Your task to perform on an android device: change timer sound Image 0: 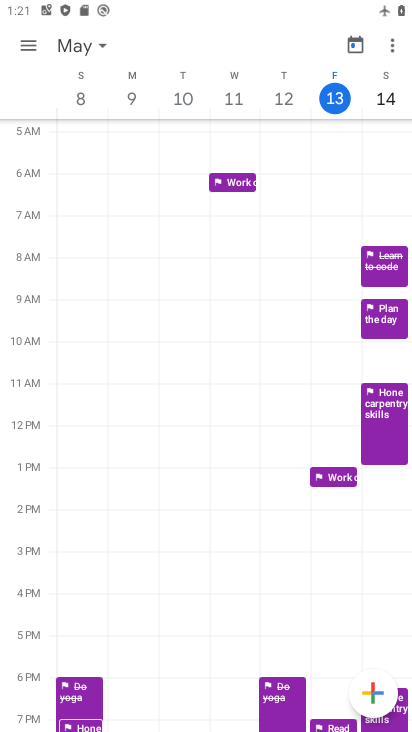
Step 0: press home button
Your task to perform on an android device: change timer sound Image 1: 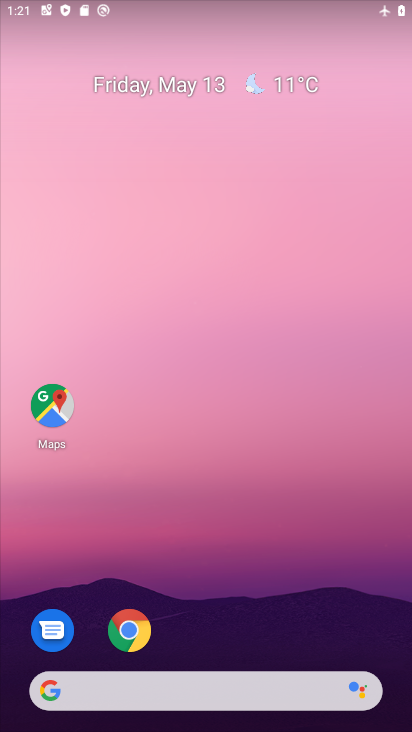
Step 1: drag from (341, 571) to (382, 28)
Your task to perform on an android device: change timer sound Image 2: 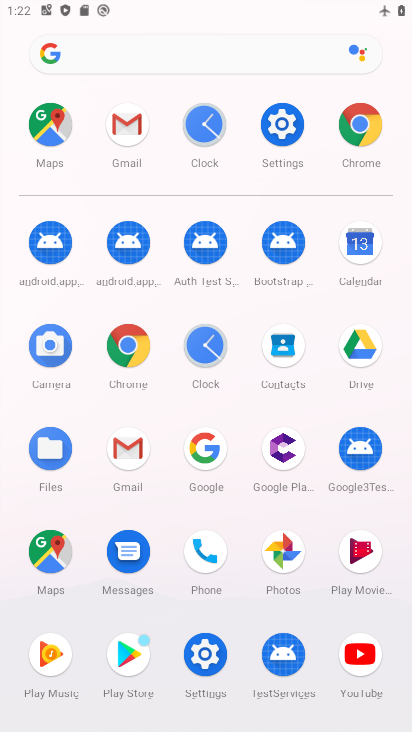
Step 2: click (198, 135)
Your task to perform on an android device: change timer sound Image 3: 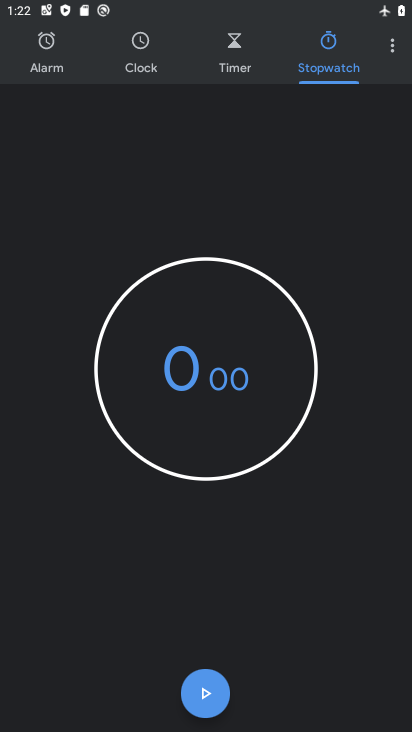
Step 3: click (393, 47)
Your task to perform on an android device: change timer sound Image 4: 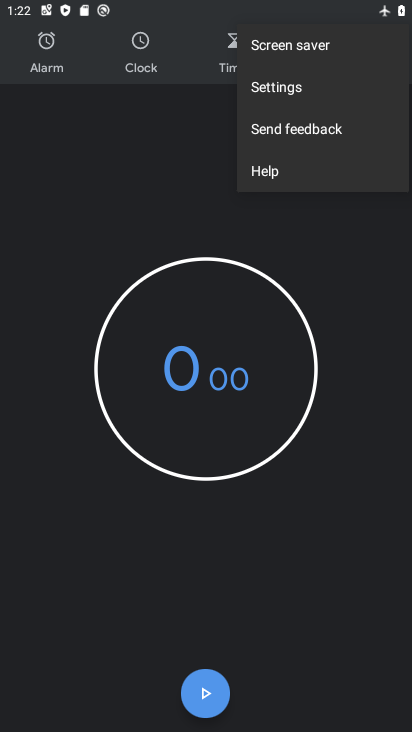
Step 4: click (296, 92)
Your task to perform on an android device: change timer sound Image 5: 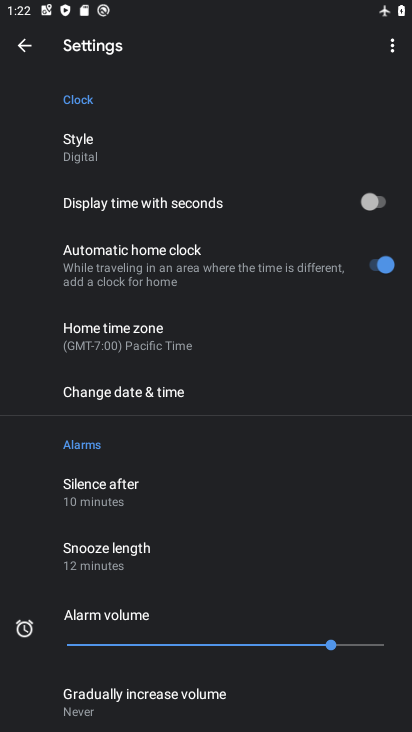
Step 5: drag from (177, 544) to (196, 236)
Your task to perform on an android device: change timer sound Image 6: 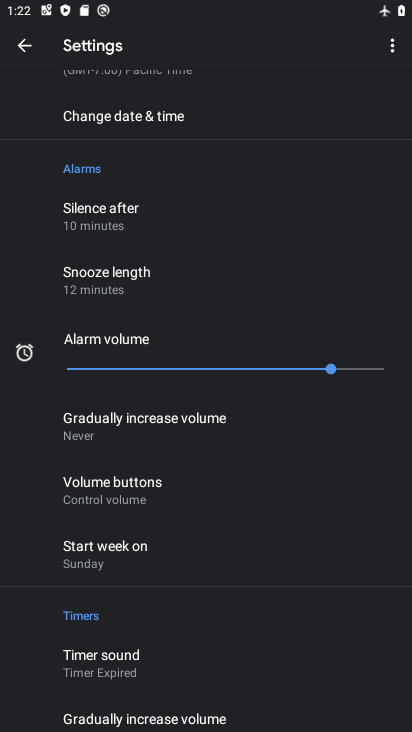
Step 6: drag from (199, 624) to (222, 411)
Your task to perform on an android device: change timer sound Image 7: 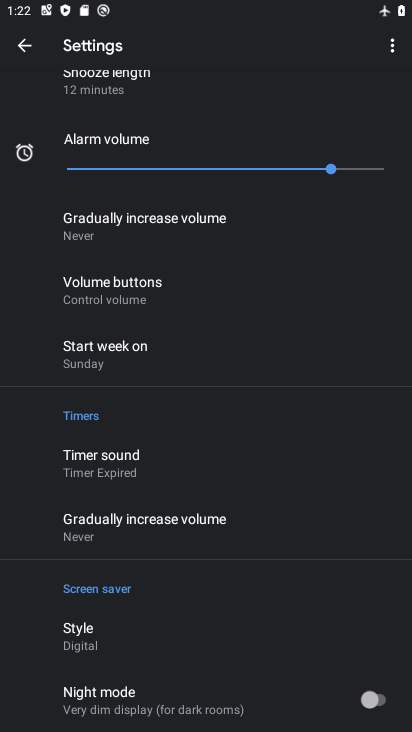
Step 7: click (127, 462)
Your task to perform on an android device: change timer sound Image 8: 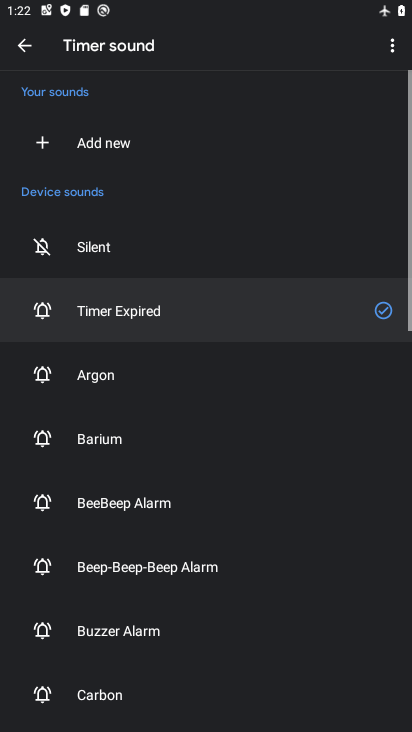
Step 8: click (107, 441)
Your task to perform on an android device: change timer sound Image 9: 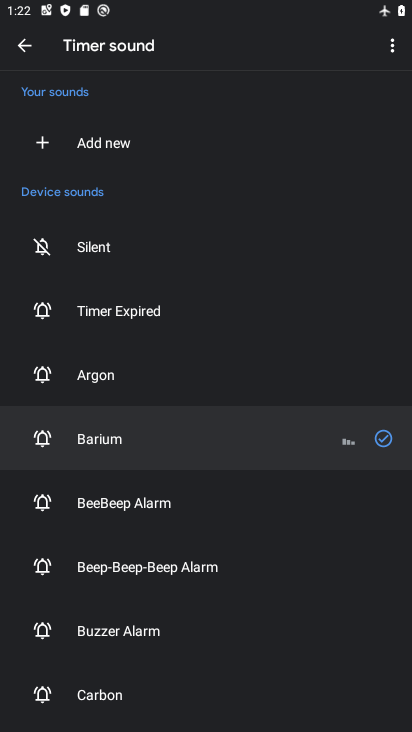
Step 9: task complete